Your task to perform on an android device: Open Google Maps Image 0: 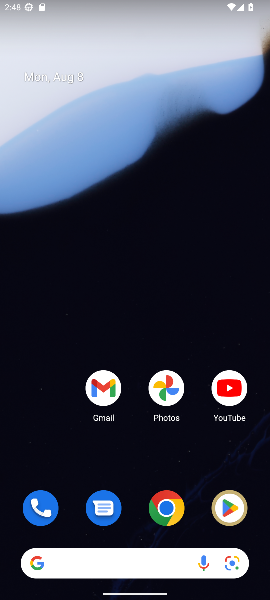
Step 0: drag from (133, 464) to (119, 52)
Your task to perform on an android device: Open Google Maps Image 1: 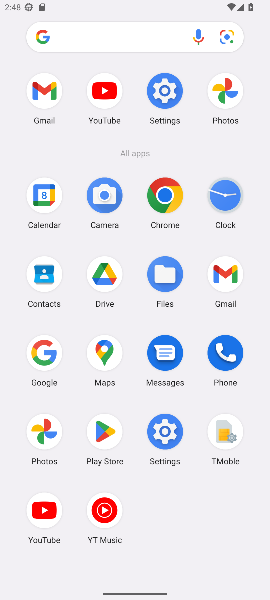
Step 1: click (100, 346)
Your task to perform on an android device: Open Google Maps Image 2: 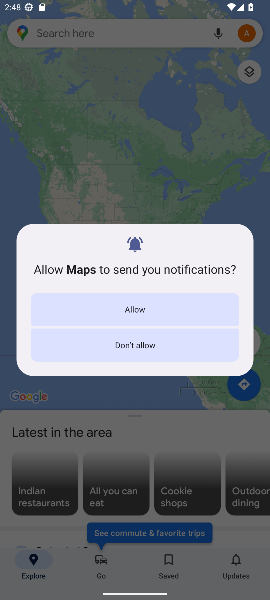
Step 2: click (140, 312)
Your task to perform on an android device: Open Google Maps Image 3: 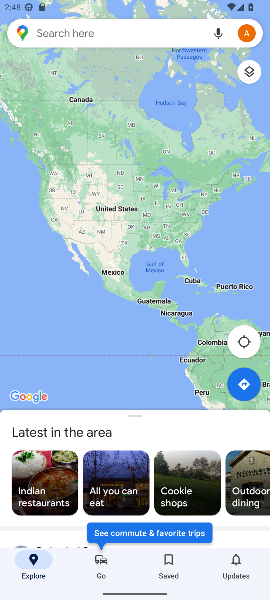
Step 3: task complete